Your task to perform on an android device: delete browsing data in the chrome app Image 0: 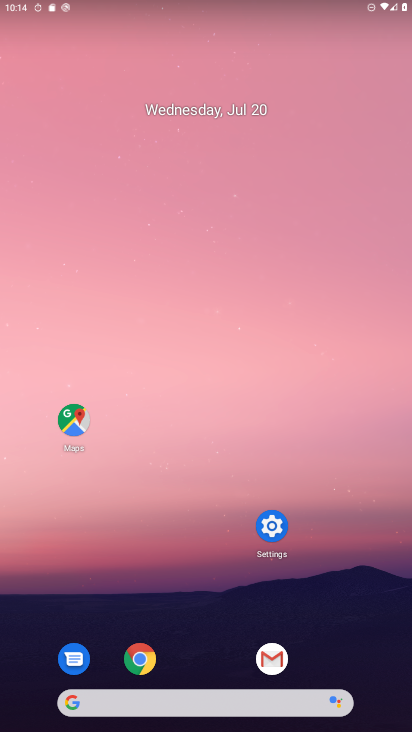
Step 0: click (141, 658)
Your task to perform on an android device: delete browsing data in the chrome app Image 1: 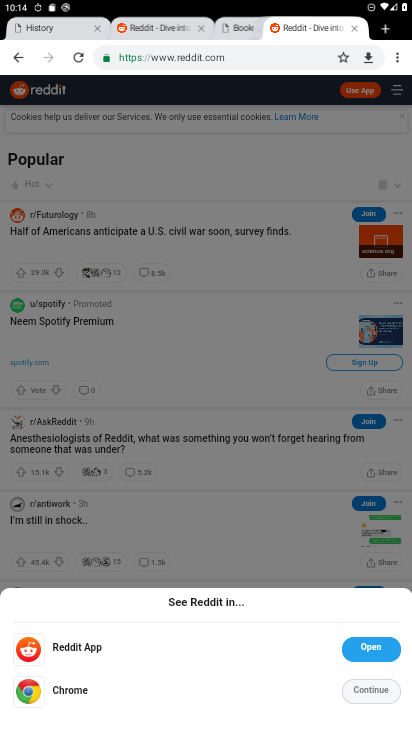
Step 1: click (392, 58)
Your task to perform on an android device: delete browsing data in the chrome app Image 2: 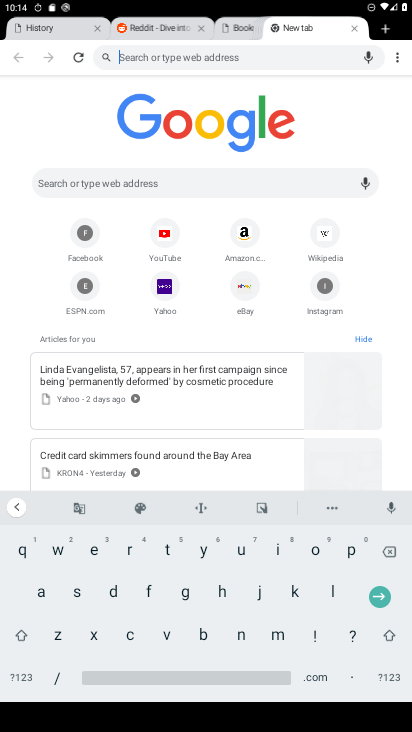
Step 2: click (395, 69)
Your task to perform on an android device: delete browsing data in the chrome app Image 3: 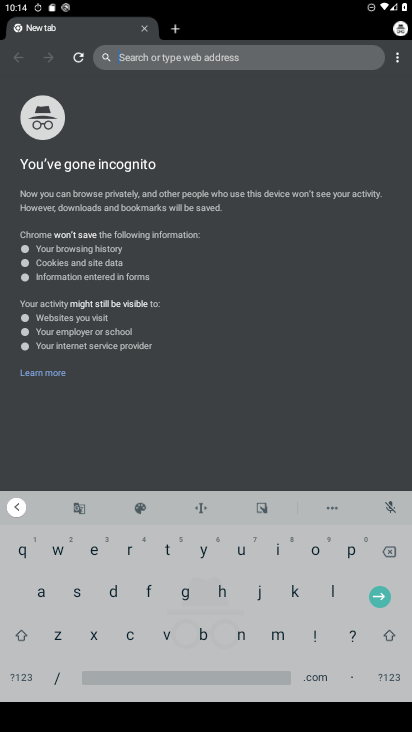
Step 3: click (145, 26)
Your task to perform on an android device: delete browsing data in the chrome app Image 4: 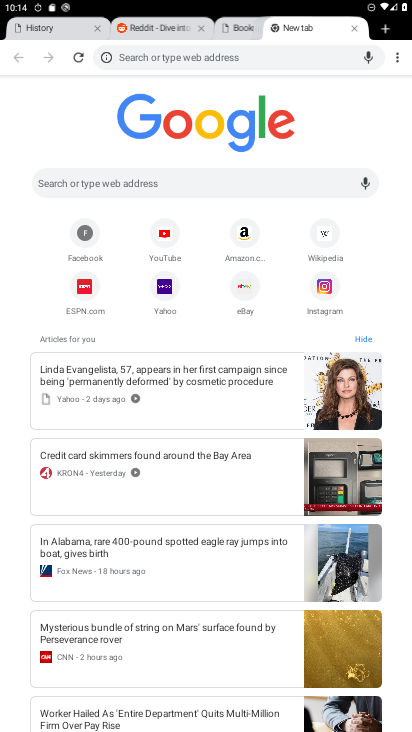
Step 4: click (397, 66)
Your task to perform on an android device: delete browsing data in the chrome app Image 5: 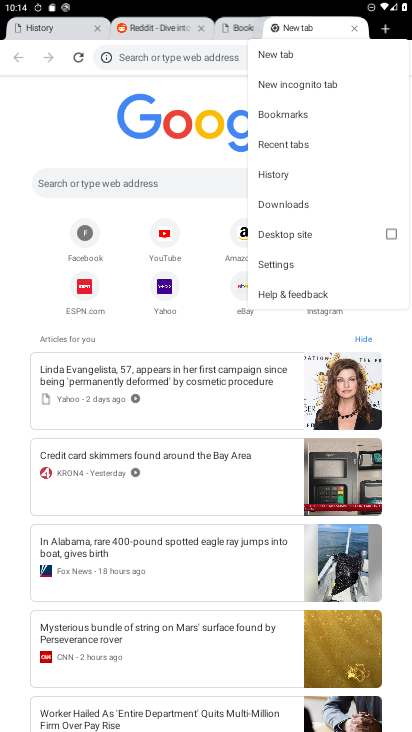
Step 5: click (283, 262)
Your task to perform on an android device: delete browsing data in the chrome app Image 6: 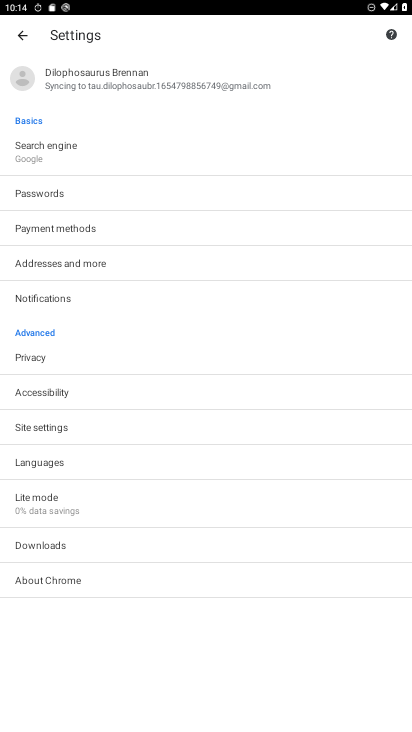
Step 6: click (56, 356)
Your task to perform on an android device: delete browsing data in the chrome app Image 7: 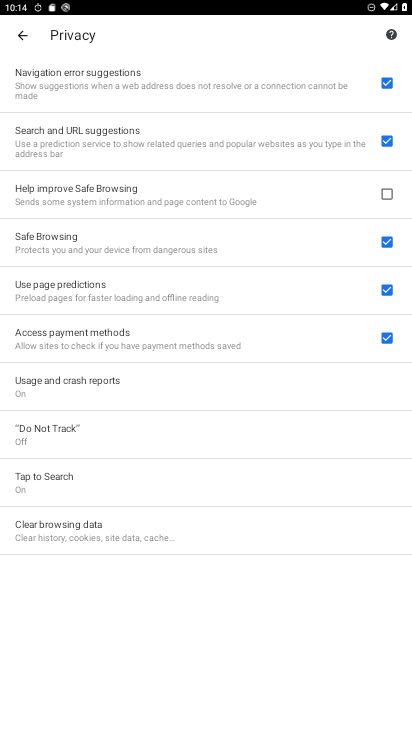
Step 7: click (77, 532)
Your task to perform on an android device: delete browsing data in the chrome app Image 8: 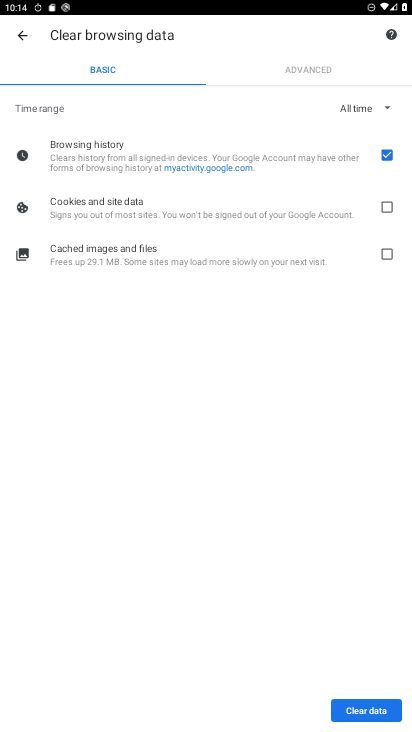
Step 8: click (377, 718)
Your task to perform on an android device: delete browsing data in the chrome app Image 9: 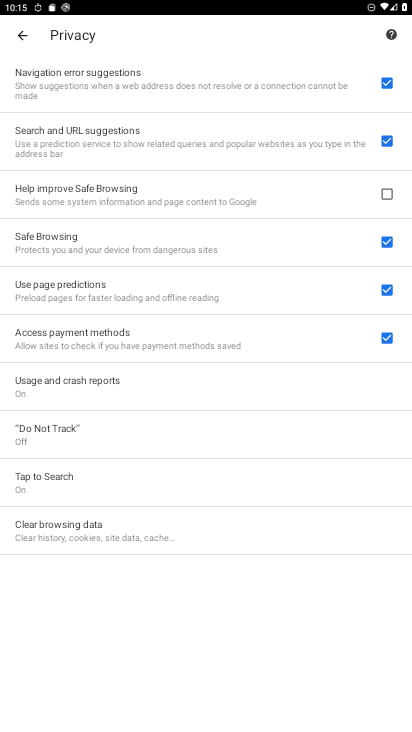
Step 9: task complete